Your task to perform on an android device: Go to eBay Image 0: 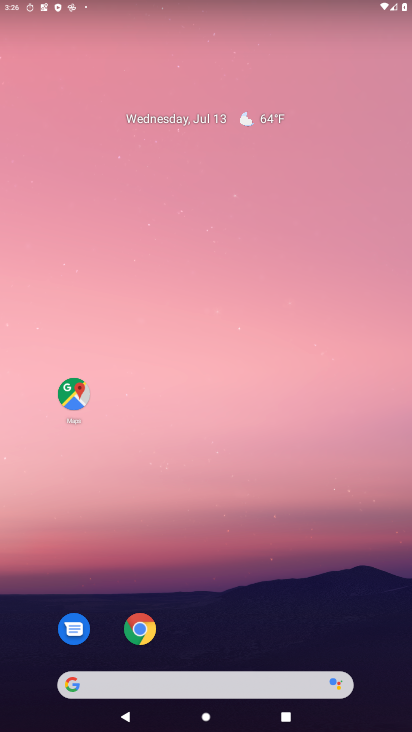
Step 0: drag from (248, 628) to (288, 75)
Your task to perform on an android device: Go to eBay Image 1: 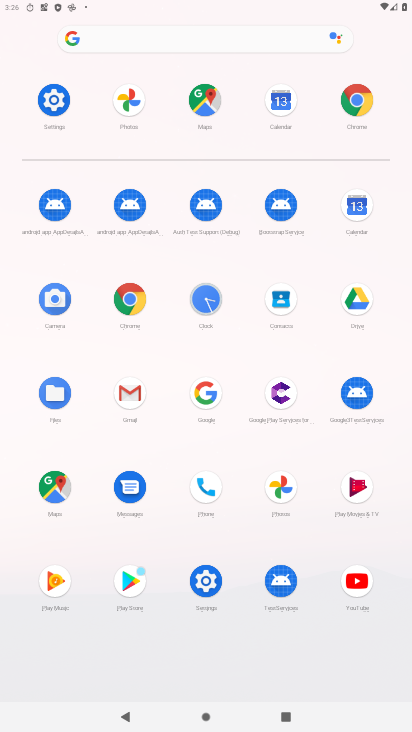
Step 1: click (138, 302)
Your task to perform on an android device: Go to eBay Image 2: 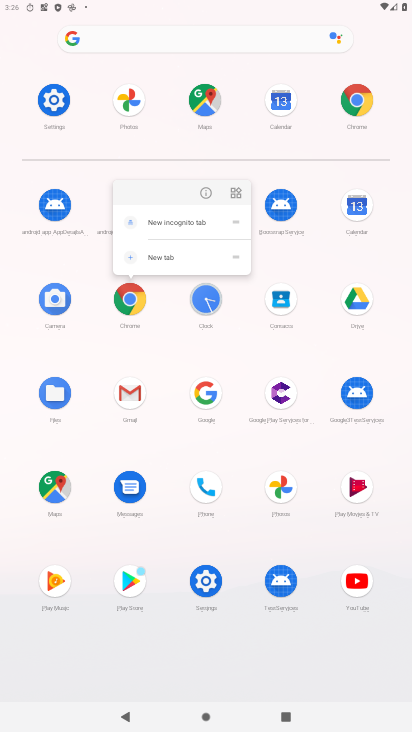
Step 2: click (136, 300)
Your task to perform on an android device: Go to eBay Image 3: 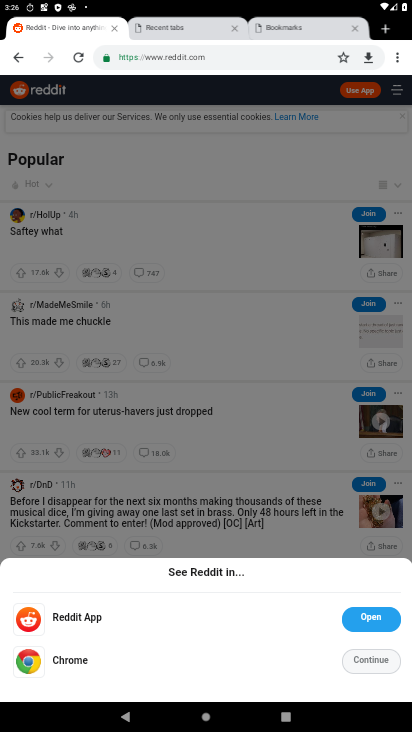
Step 3: click (166, 60)
Your task to perform on an android device: Go to eBay Image 4: 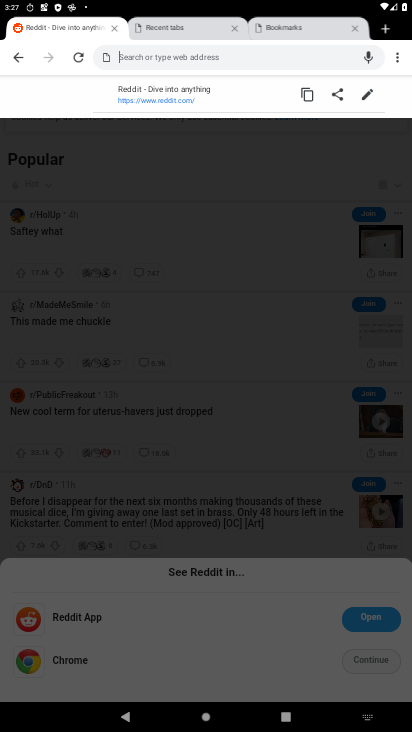
Step 4: type "ebay"
Your task to perform on an android device: Go to eBay Image 5: 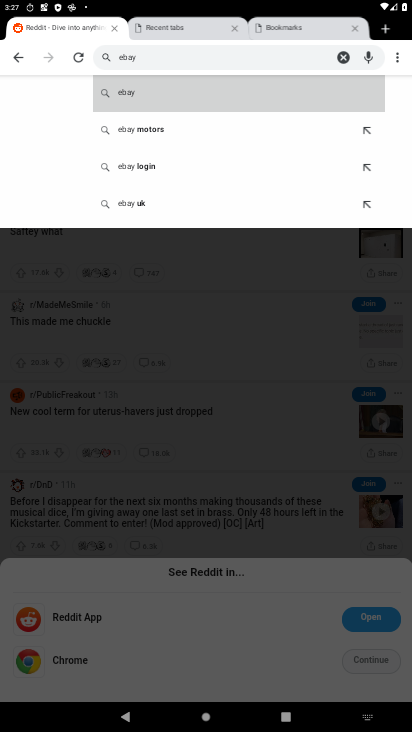
Step 5: click (130, 89)
Your task to perform on an android device: Go to eBay Image 6: 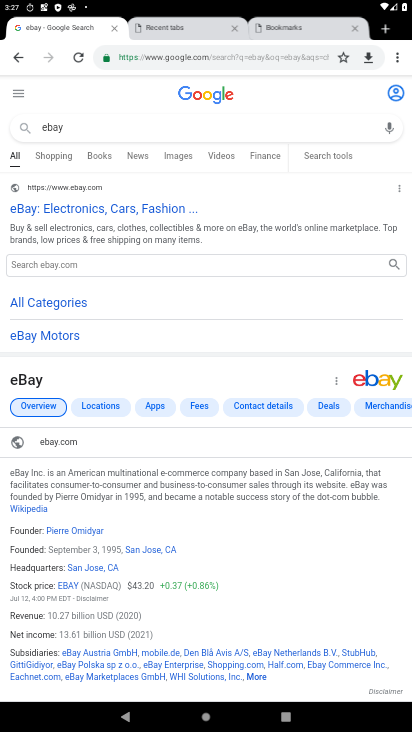
Step 6: task complete